Your task to perform on an android device: delete a single message in the gmail app Image 0: 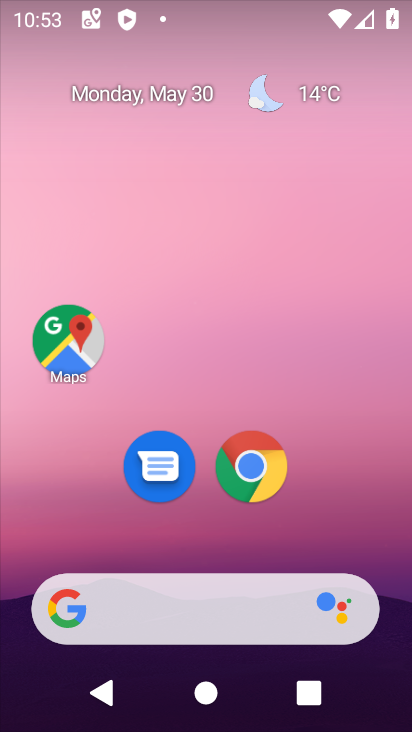
Step 0: drag from (339, 510) to (302, 83)
Your task to perform on an android device: delete a single message in the gmail app Image 1: 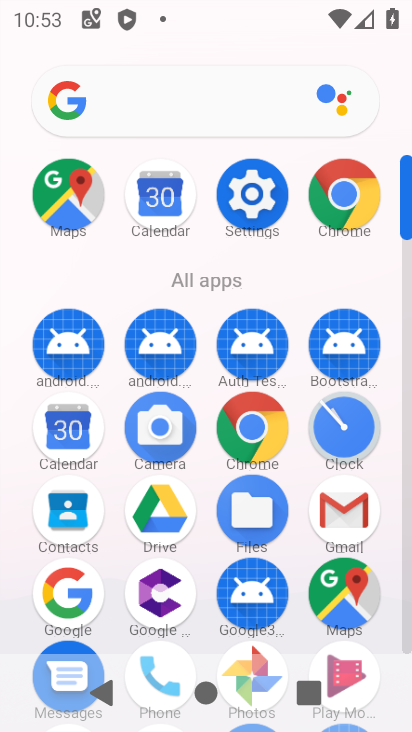
Step 1: click (331, 508)
Your task to perform on an android device: delete a single message in the gmail app Image 2: 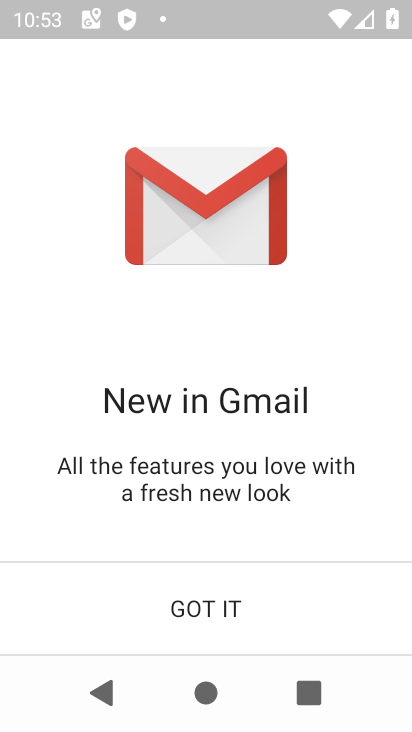
Step 2: click (237, 596)
Your task to perform on an android device: delete a single message in the gmail app Image 3: 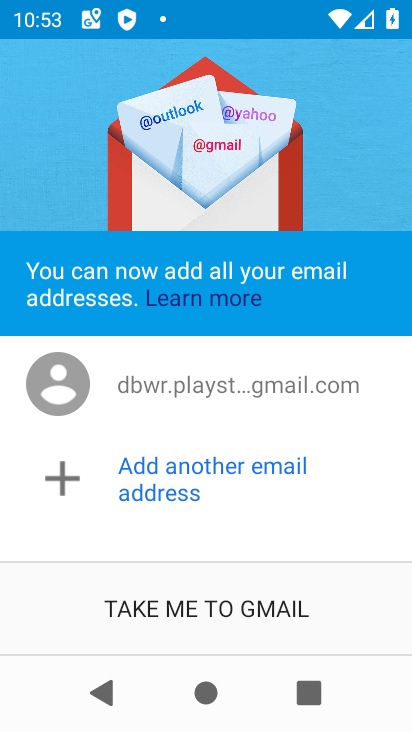
Step 3: click (230, 599)
Your task to perform on an android device: delete a single message in the gmail app Image 4: 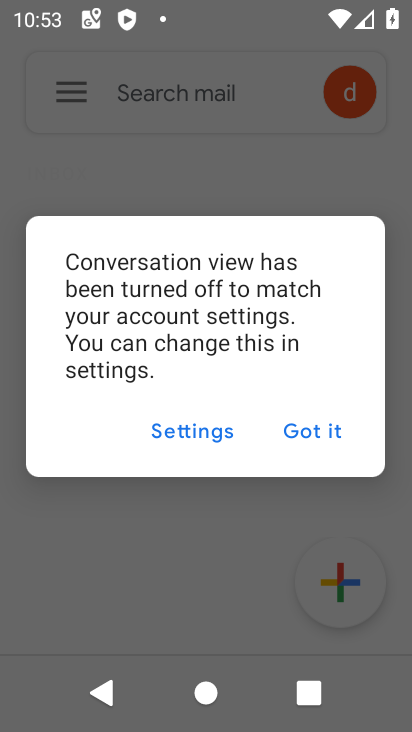
Step 4: click (301, 430)
Your task to perform on an android device: delete a single message in the gmail app Image 5: 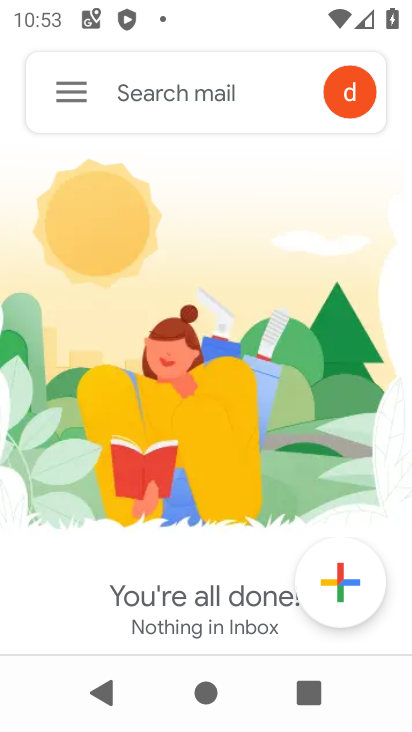
Step 5: click (56, 78)
Your task to perform on an android device: delete a single message in the gmail app Image 6: 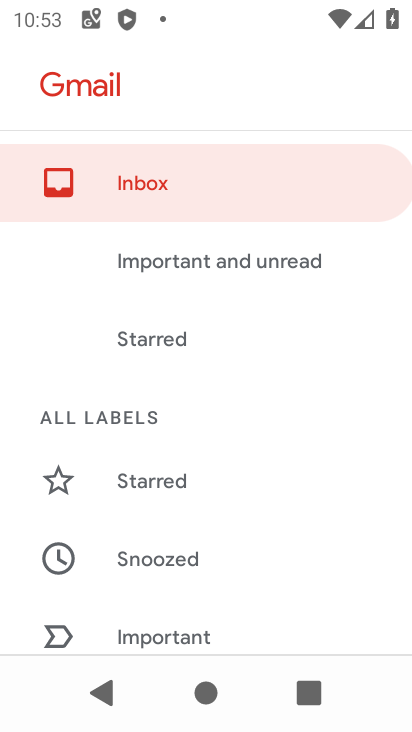
Step 6: drag from (206, 498) to (162, 73)
Your task to perform on an android device: delete a single message in the gmail app Image 7: 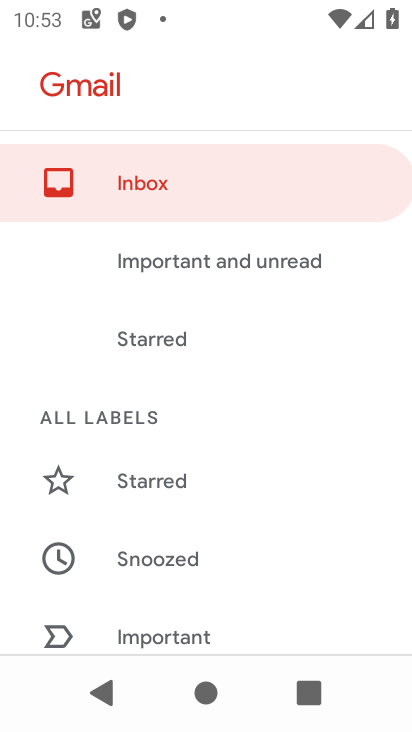
Step 7: drag from (247, 619) to (276, 215)
Your task to perform on an android device: delete a single message in the gmail app Image 8: 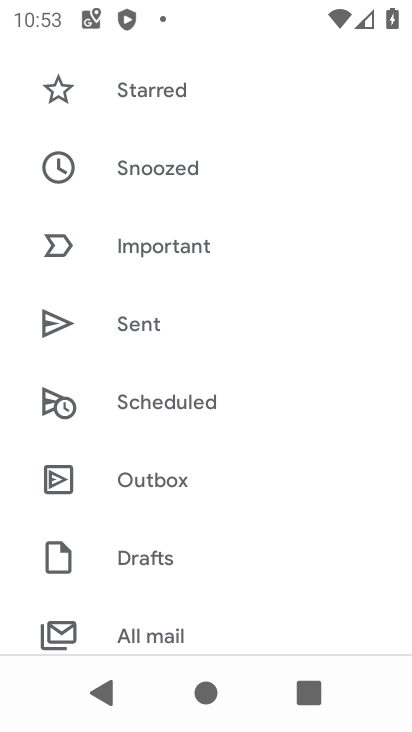
Step 8: click (168, 623)
Your task to perform on an android device: delete a single message in the gmail app Image 9: 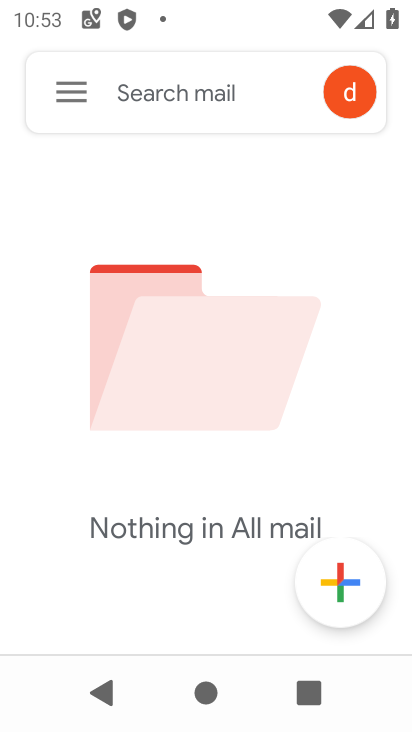
Step 9: task complete